Your task to perform on an android device: toggle data saver in the chrome app Image 0: 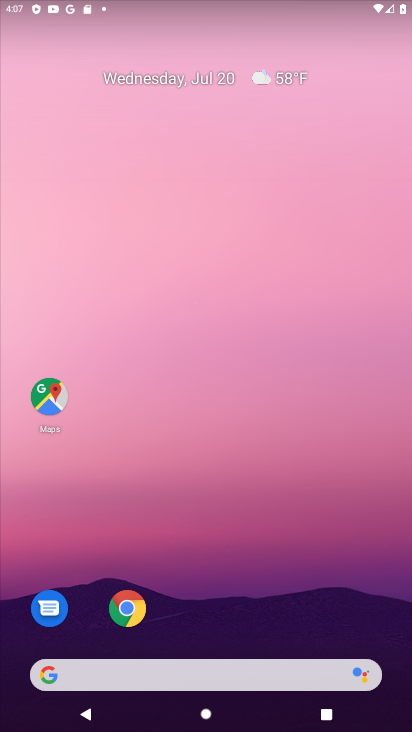
Step 0: drag from (215, 605) to (251, 76)
Your task to perform on an android device: toggle data saver in the chrome app Image 1: 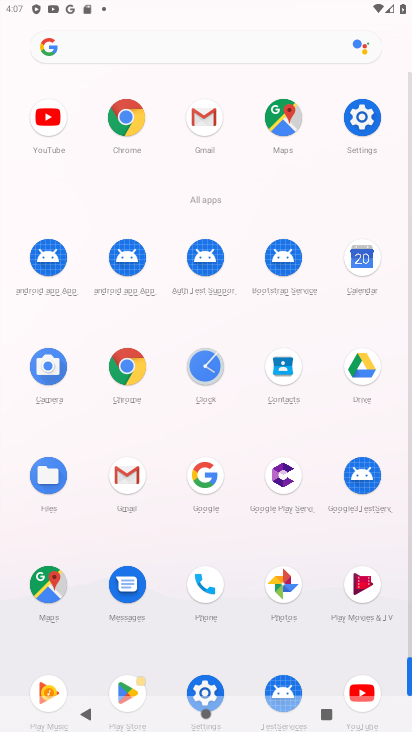
Step 1: click (123, 364)
Your task to perform on an android device: toggle data saver in the chrome app Image 2: 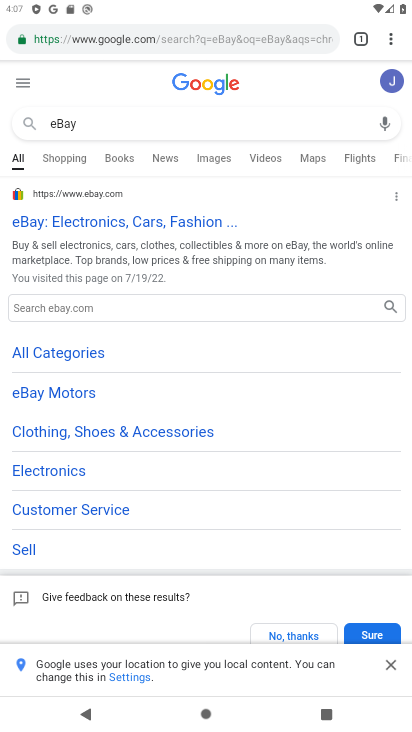
Step 2: click (395, 36)
Your task to perform on an android device: toggle data saver in the chrome app Image 3: 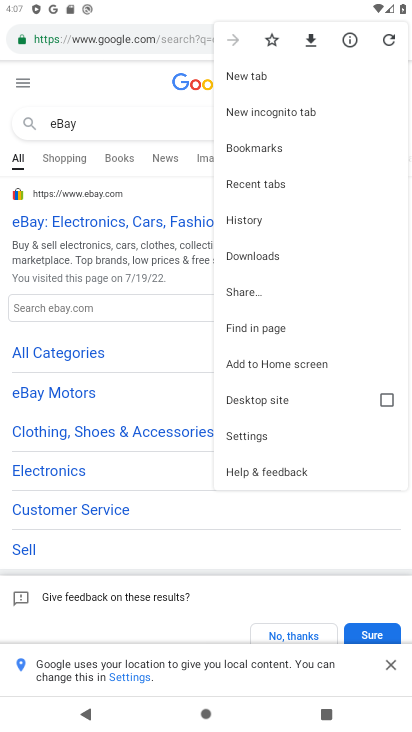
Step 3: click (249, 435)
Your task to perform on an android device: toggle data saver in the chrome app Image 4: 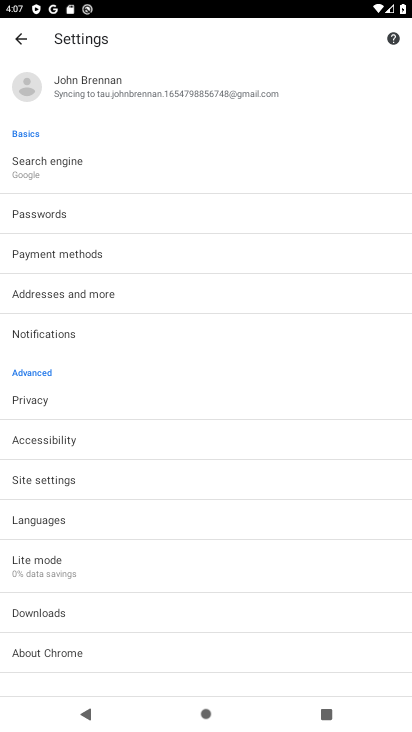
Step 4: click (47, 573)
Your task to perform on an android device: toggle data saver in the chrome app Image 5: 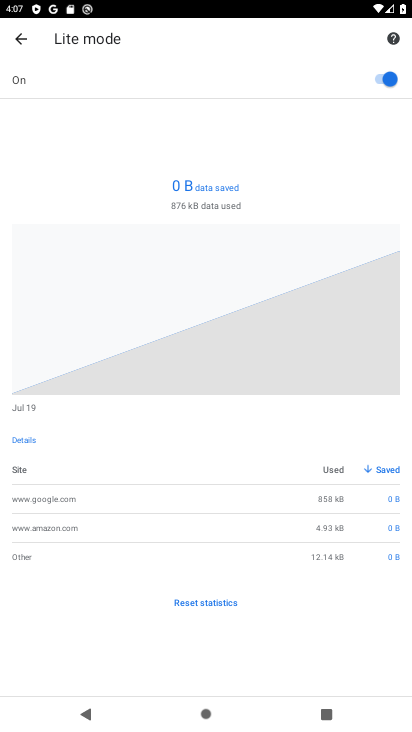
Step 5: click (367, 80)
Your task to perform on an android device: toggle data saver in the chrome app Image 6: 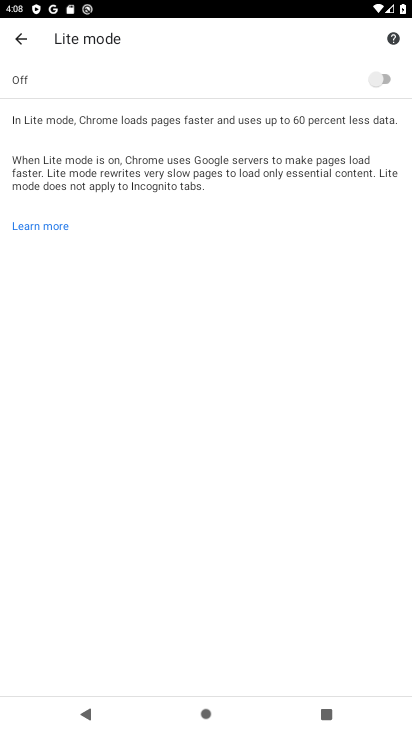
Step 6: task complete